Your task to perform on an android device: Search for Mexican restaurants on Maps Image 0: 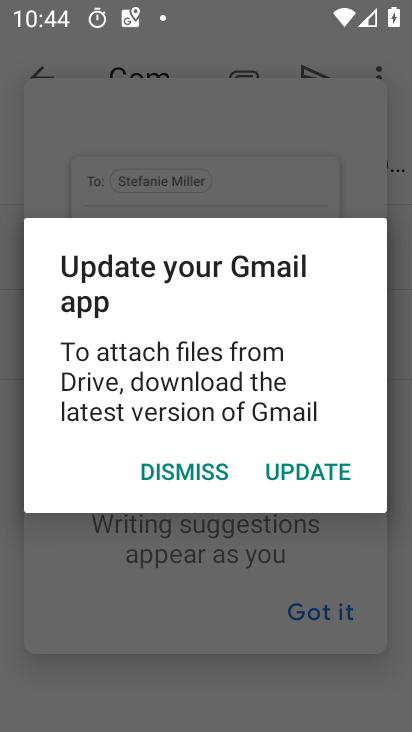
Step 0: press home button
Your task to perform on an android device: Search for Mexican restaurants on Maps Image 1: 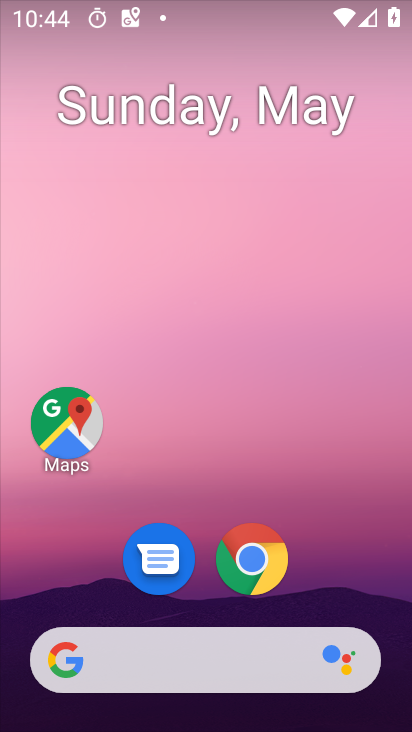
Step 1: drag from (347, 627) to (382, 203)
Your task to perform on an android device: Search for Mexican restaurants on Maps Image 2: 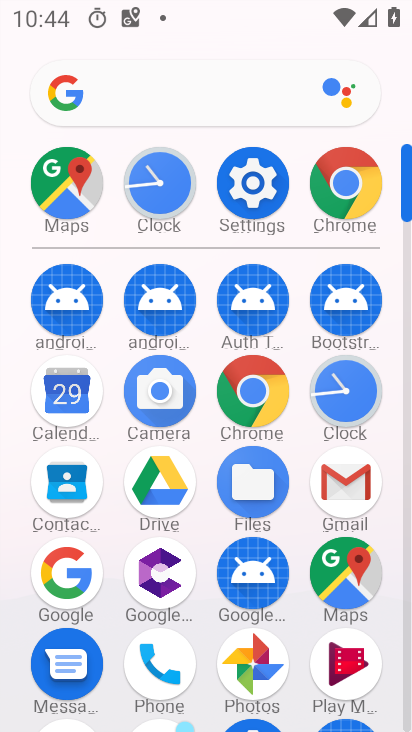
Step 2: click (342, 566)
Your task to perform on an android device: Search for Mexican restaurants on Maps Image 3: 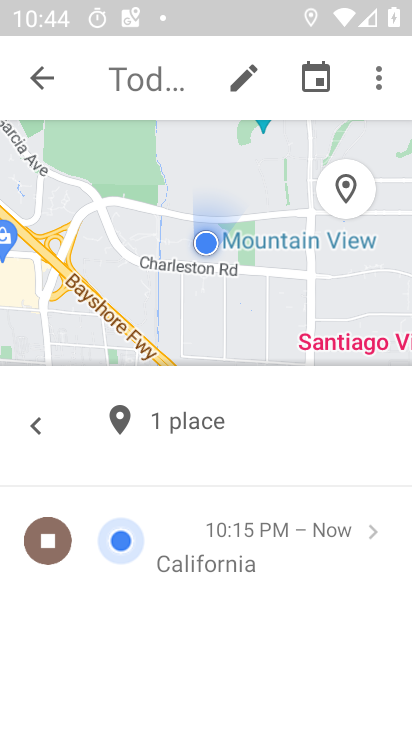
Step 3: click (43, 94)
Your task to perform on an android device: Search for Mexican restaurants on Maps Image 4: 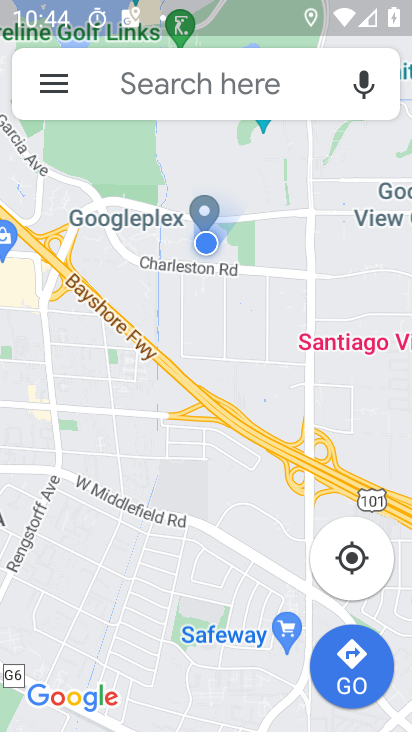
Step 4: click (207, 102)
Your task to perform on an android device: Search for Mexican restaurants on Maps Image 5: 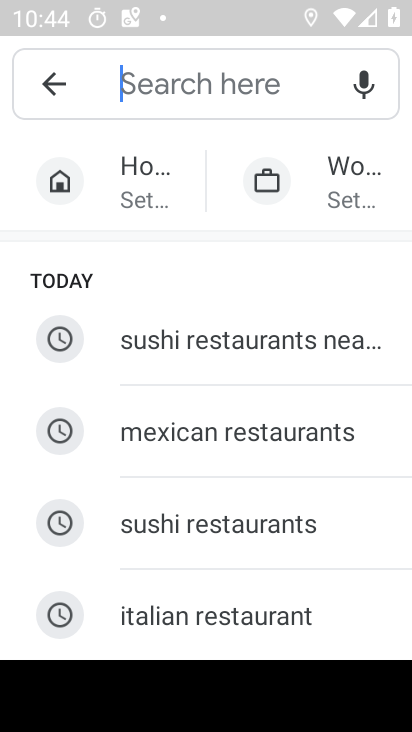
Step 5: click (215, 444)
Your task to perform on an android device: Search for Mexican restaurants on Maps Image 6: 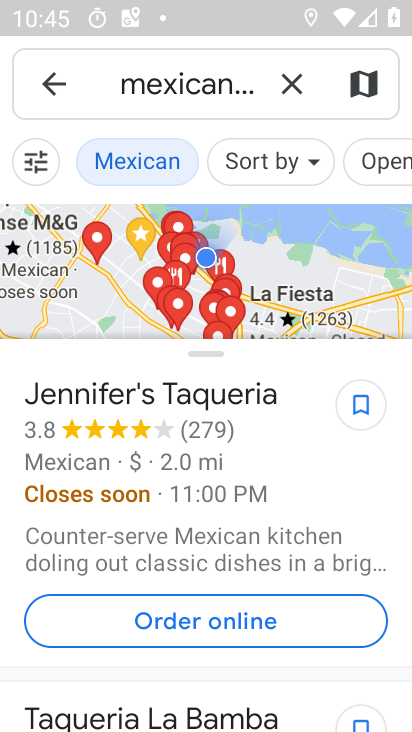
Step 6: task complete